Your task to perform on an android device: View the shopping cart on target.com. Add "razer blackwidow" to the cart on target.com Image 0: 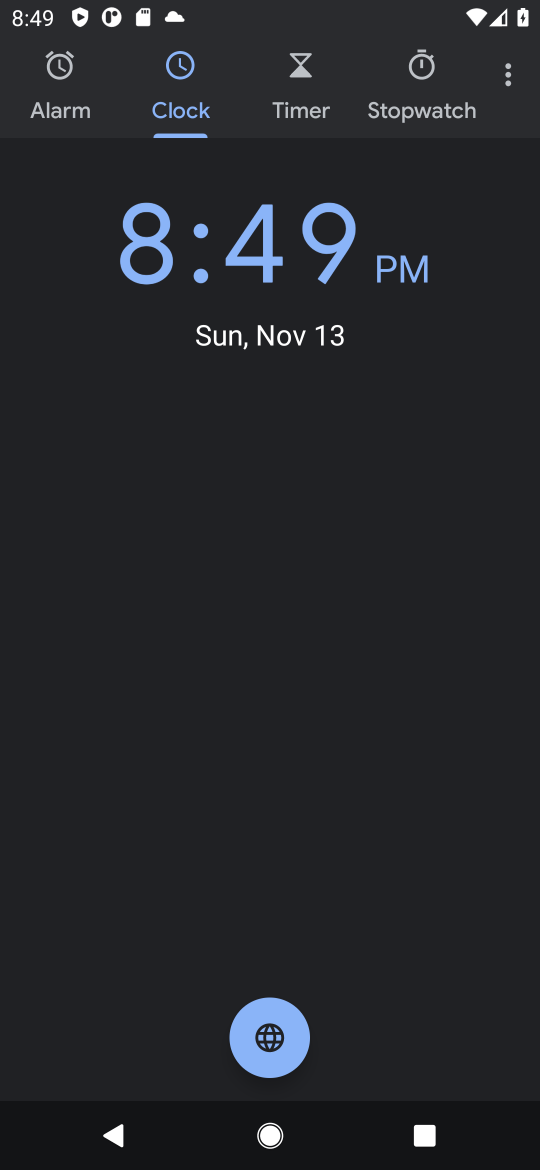
Step 0: press home button
Your task to perform on an android device: View the shopping cart on target.com. Add "razer blackwidow" to the cart on target.com Image 1: 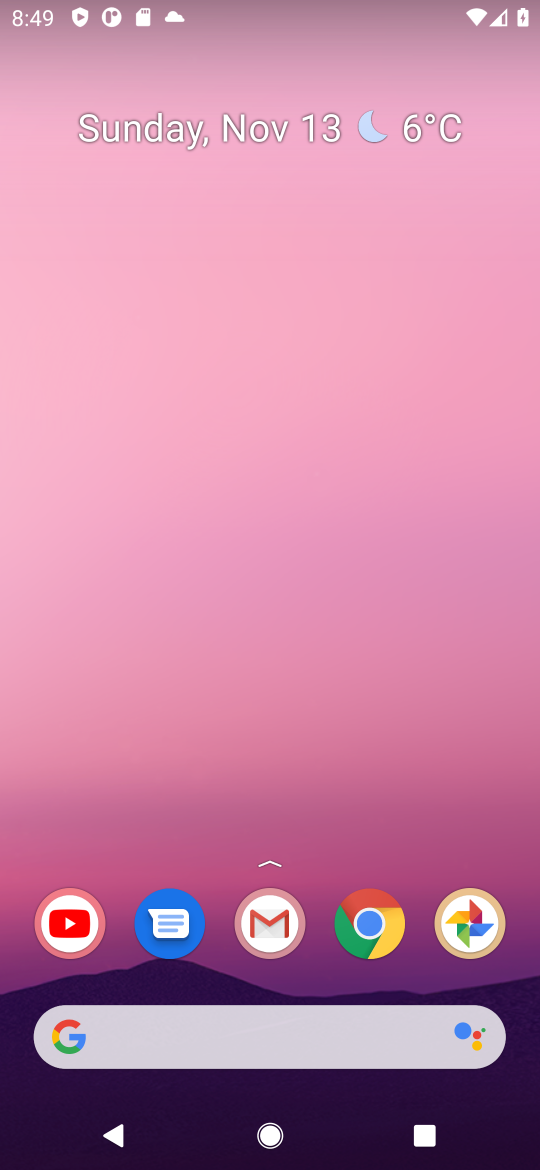
Step 1: click (367, 936)
Your task to perform on an android device: View the shopping cart on target.com. Add "razer blackwidow" to the cart on target.com Image 2: 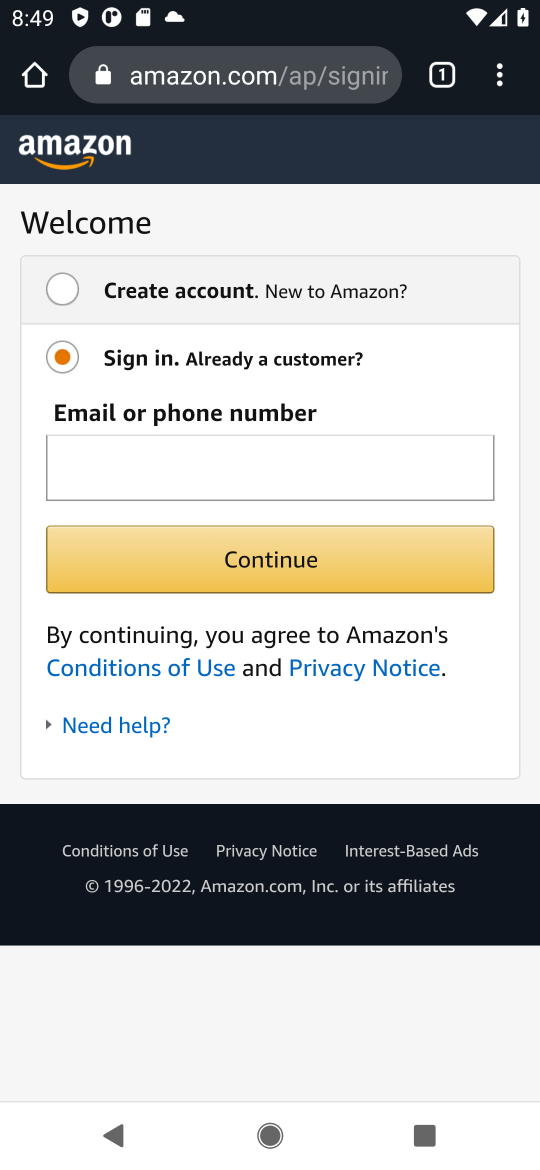
Step 2: click (183, 67)
Your task to perform on an android device: View the shopping cart on target.com. Add "razer blackwidow" to the cart on target.com Image 3: 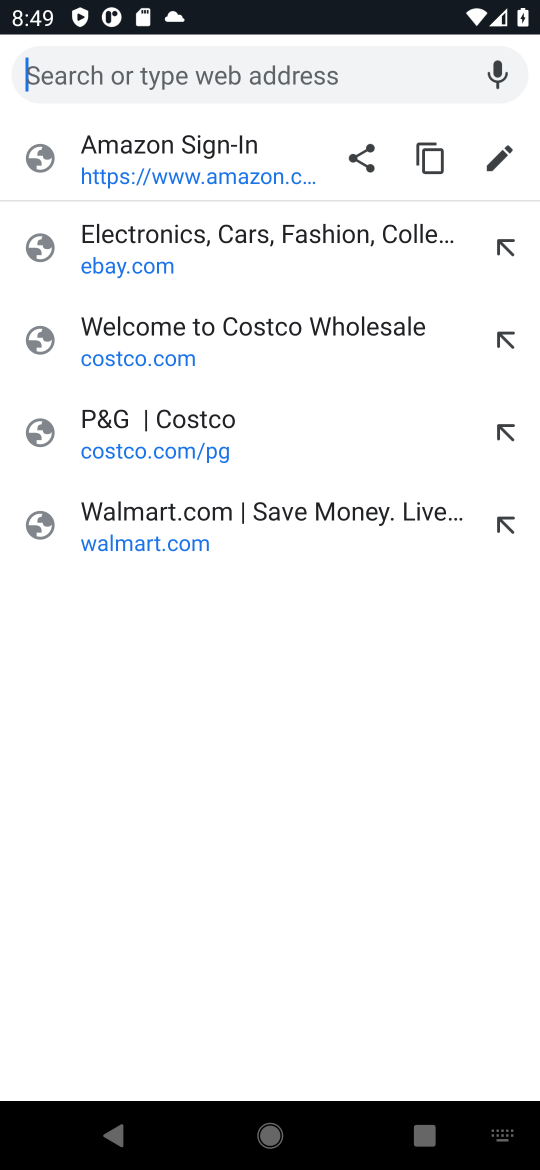
Step 3: type "target.com"
Your task to perform on an android device: View the shopping cart on target.com. Add "razer blackwidow" to the cart on target.com Image 4: 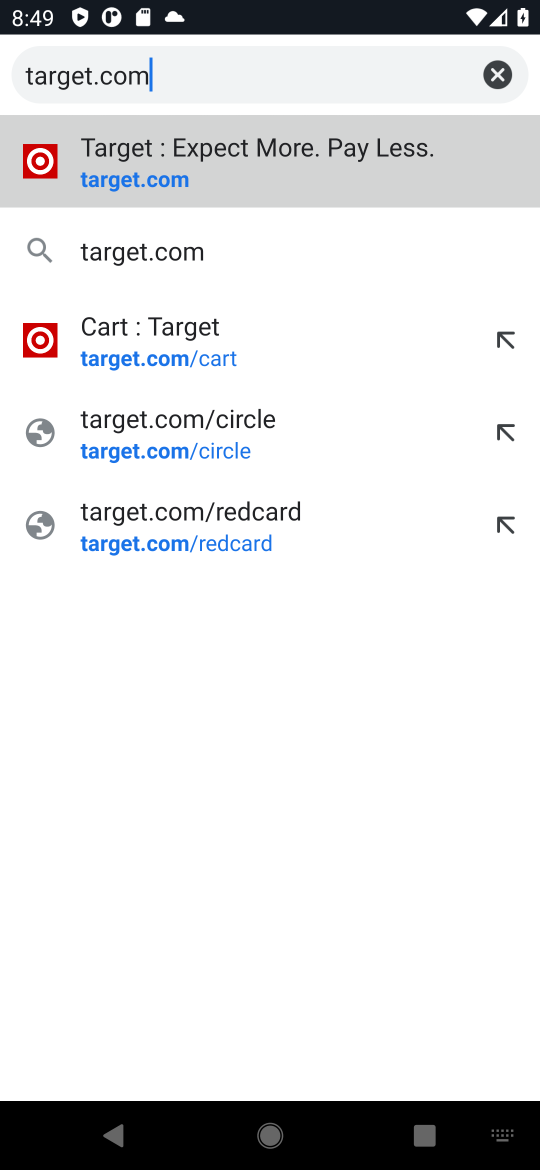
Step 4: press enter
Your task to perform on an android device: View the shopping cart on target.com. Add "razer blackwidow" to the cart on target.com Image 5: 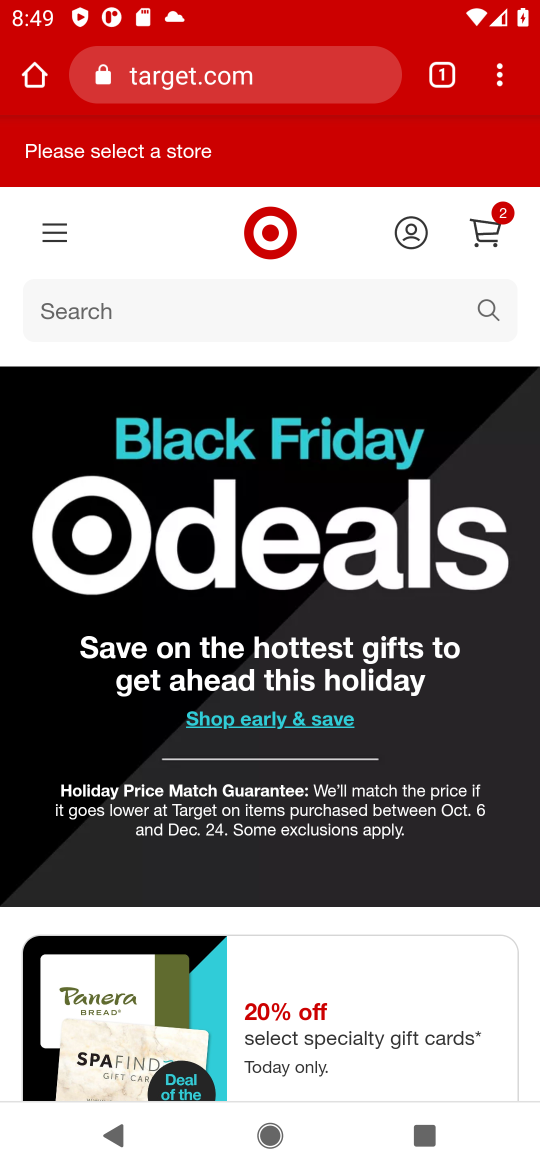
Step 5: click (481, 229)
Your task to perform on an android device: View the shopping cart on target.com. Add "razer blackwidow" to the cart on target.com Image 6: 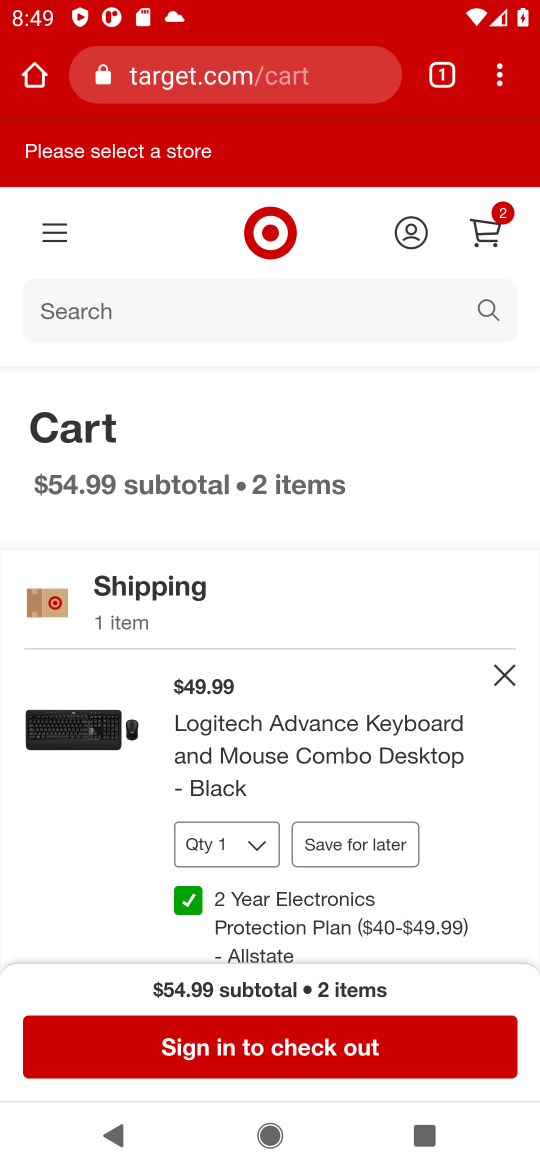
Step 6: drag from (385, 650) to (448, 407)
Your task to perform on an android device: View the shopping cart on target.com. Add "razer blackwidow" to the cart on target.com Image 7: 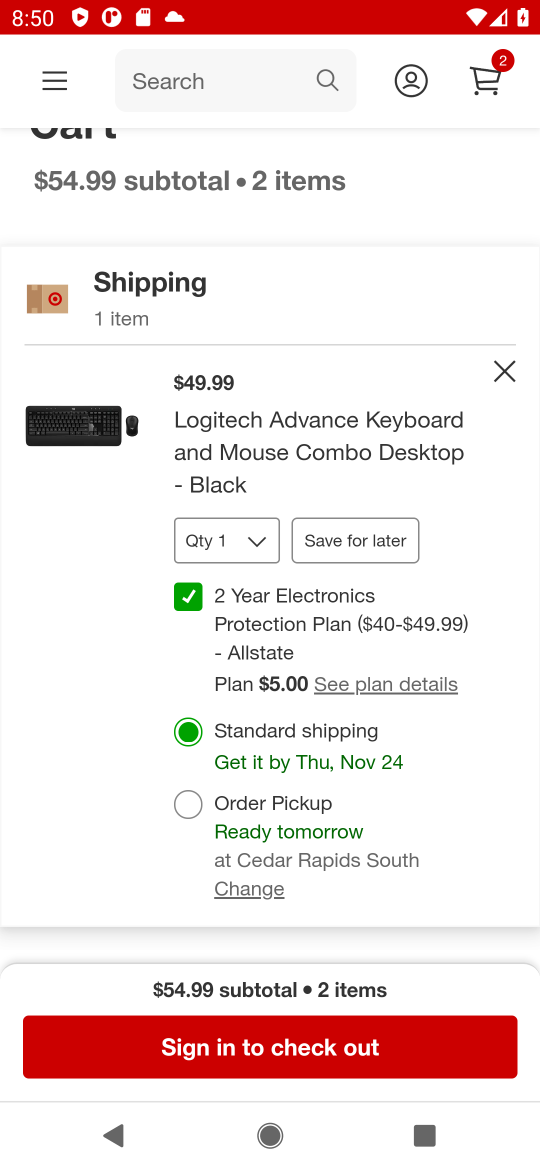
Step 7: click (278, 1062)
Your task to perform on an android device: View the shopping cart on target.com. Add "razer blackwidow" to the cart on target.com Image 8: 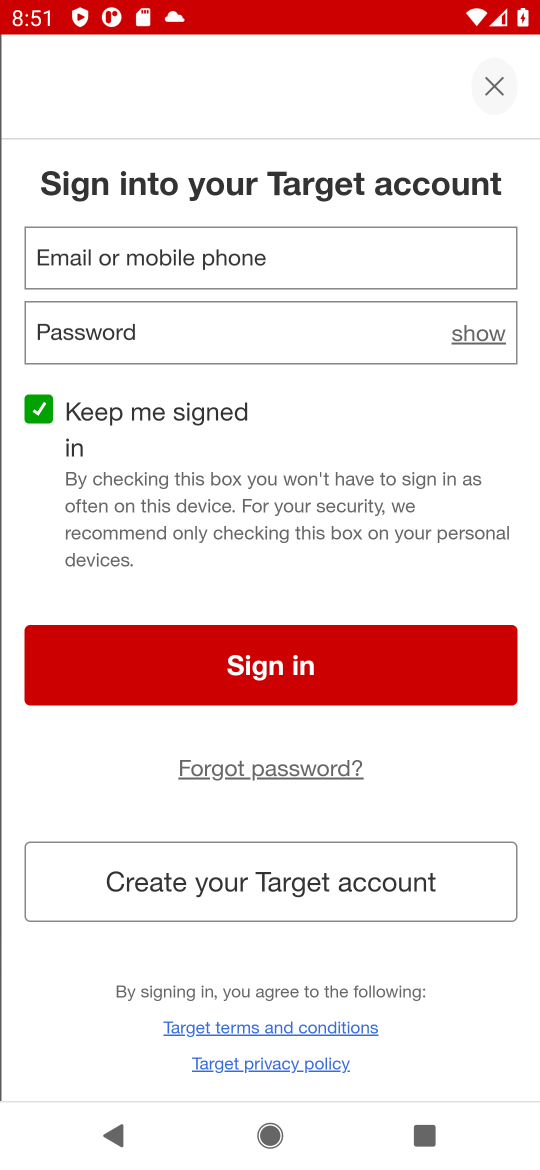
Step 8: task complete